Your task to perform on an android device: set the stopwatch Image 0: 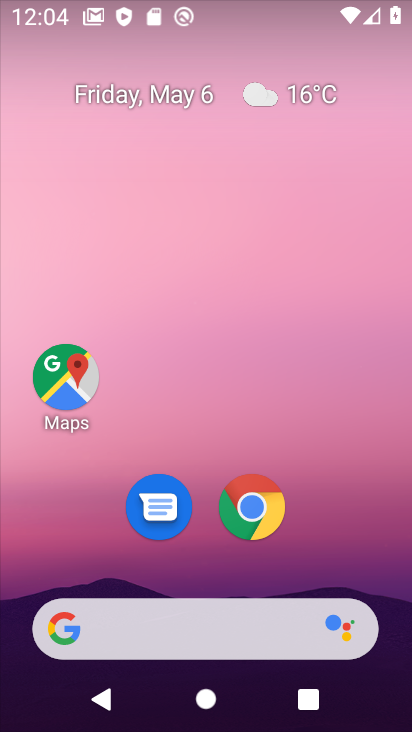
Step 0: drag from (202, 725) to (209, 124)
Your task to perform on an android device: set the stopwatch Image 1: 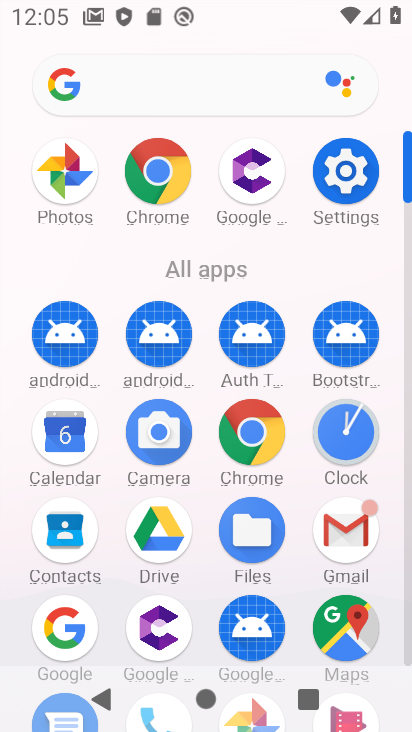
Step 1: click (350, 441)
Your task to perform on an android device: set the stopwatch Image 2: 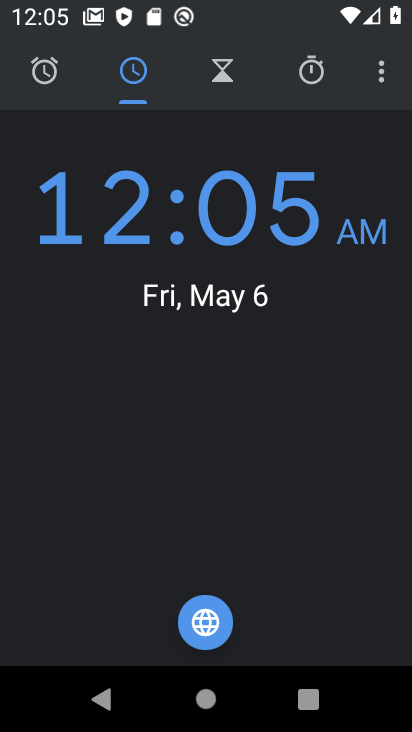
Step 2: click (315, 70)
Your task to perform on an android device: set the stopwatch Image 3: 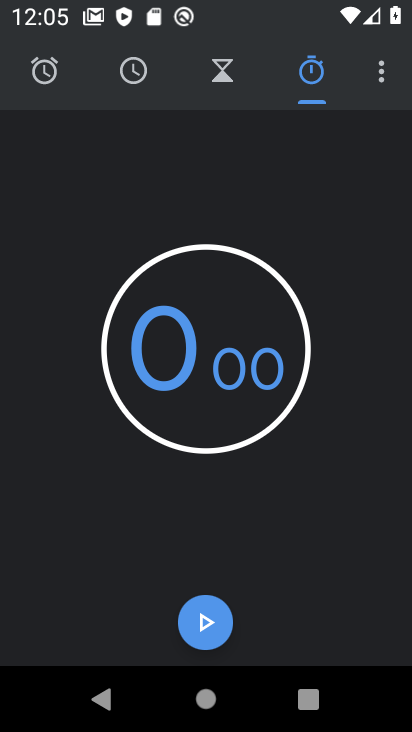
Step 3: click (200, 362)
Your task to perform on an android device: set the stopwatch Image 4: 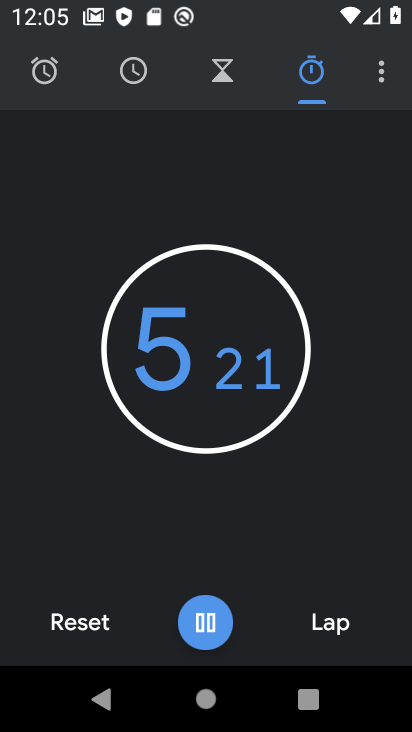
Step 4: type "876"
Your task to perform on an android device: set the stopwatch Image 5: 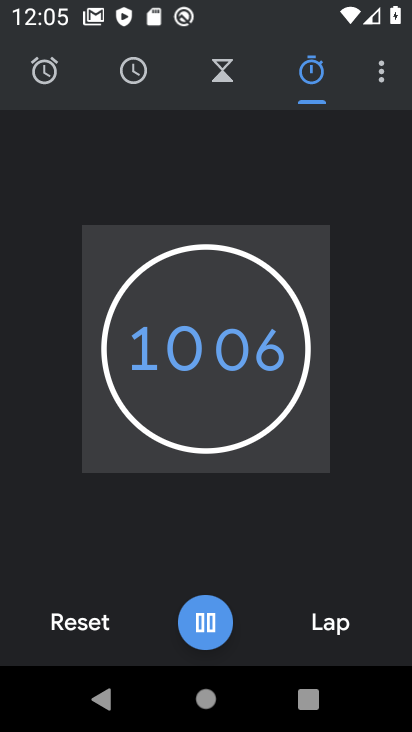
Step 5: task complete